Your task to perform on an android device: delete location history Image 0: 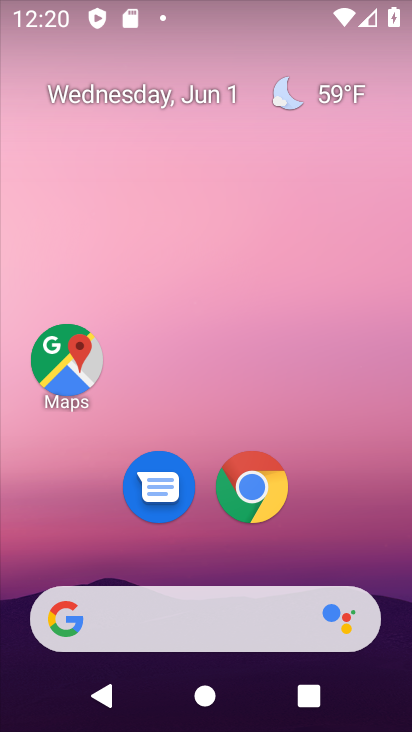
Step 0: click (49, 370)
Your task to perform on an android device: delete location history Image 1: 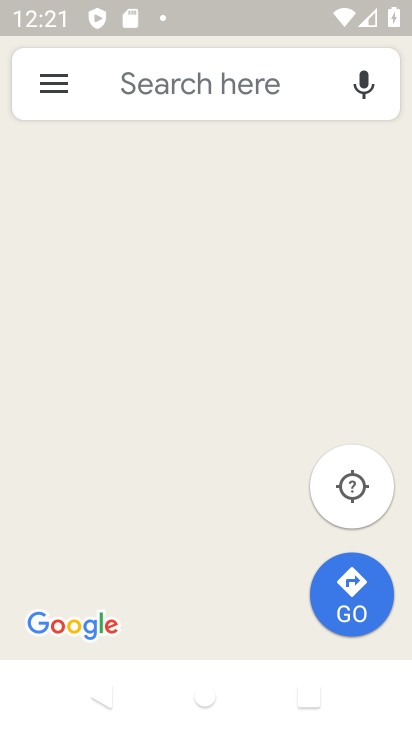
Step 1: click (47, 73)
Your task to perform on an android device: delete location history Image 2: 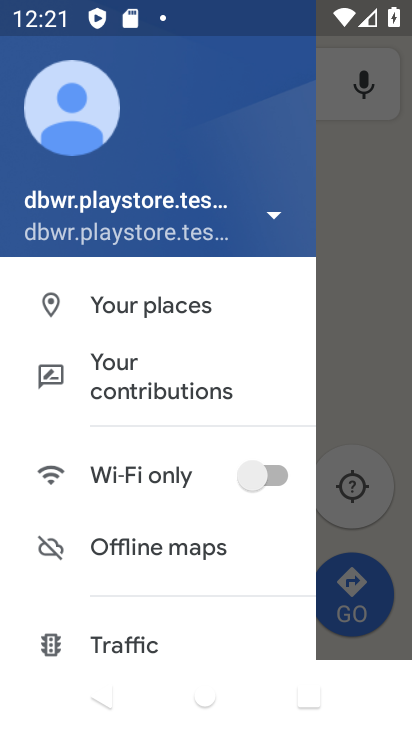
Step 2: drag from (146, 584) to (176, 189)
Your task to perform on an android device: delete location history Image 3: 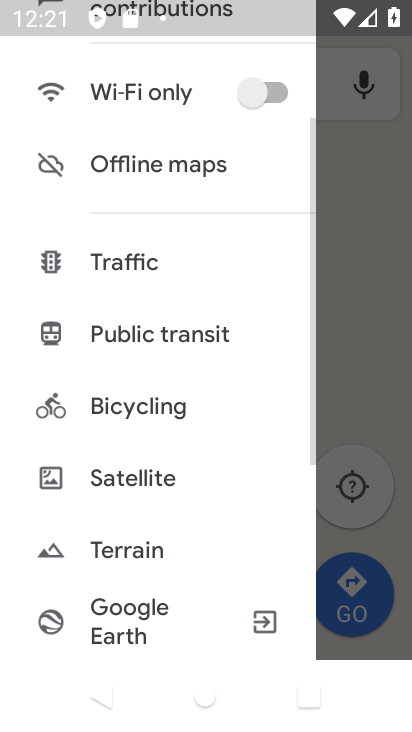
Step 3: drag from (178, 237) to (120, 720)
Your task to perform on an android device: delete location history Image 4: 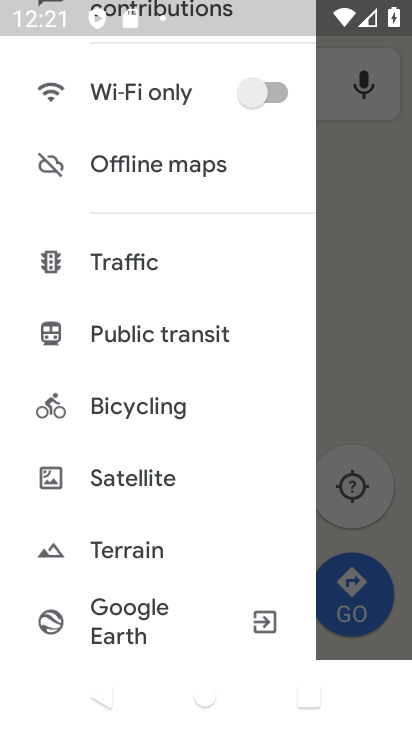
Step 4: drag from (123, 233) to (166, 722)
Your task to perform on an android device: delete location history Image 5: 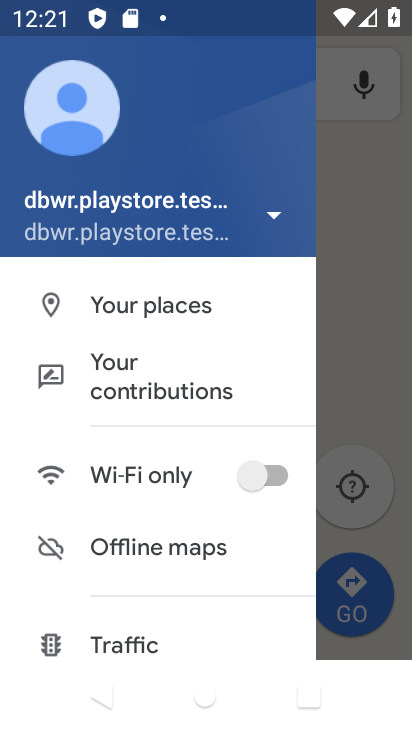
Step 5: drag from (142, 576) to (226, 47)
Your task to perform on an android device: delete location history Image 6: 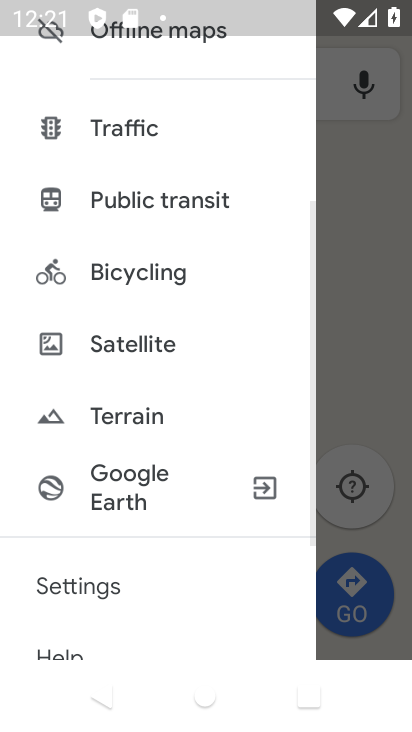
Step 6: drag from (122, 526) to (173, 1)
Your task to perform on an android device: delete location history Image 7: 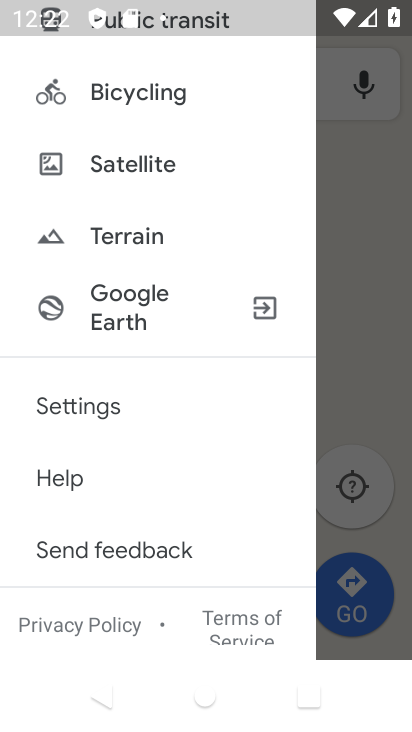
Step 7: click (304, 254)
Your task to perform on an android device: delete location history Image 8: 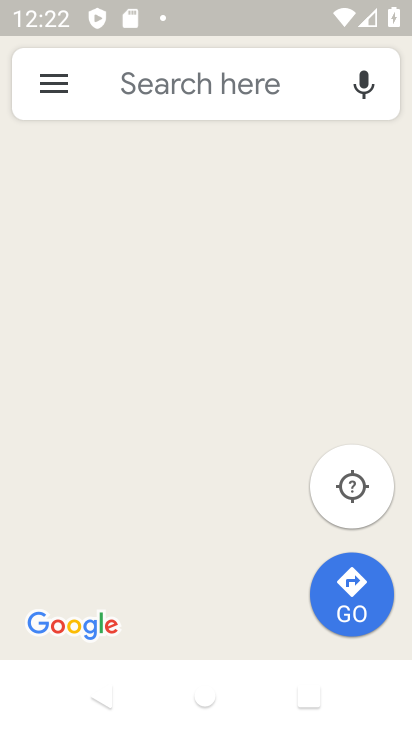
Step 8: task complete